Your task to perform on an android device: Open Google Maps Image 0: 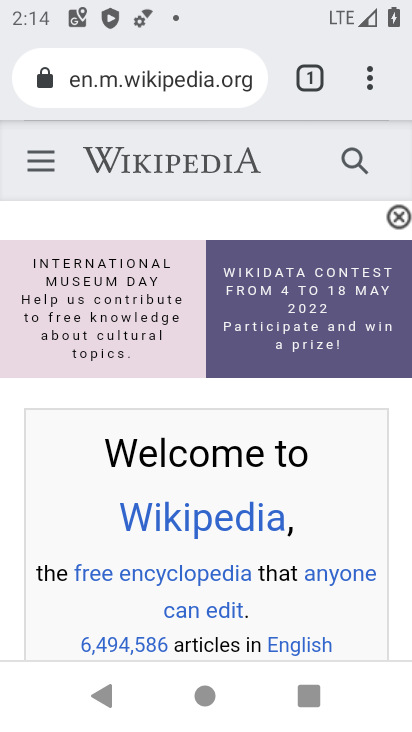
Step 0: press home button
Your task to perform on an android device: Open Google Maps Image 1: 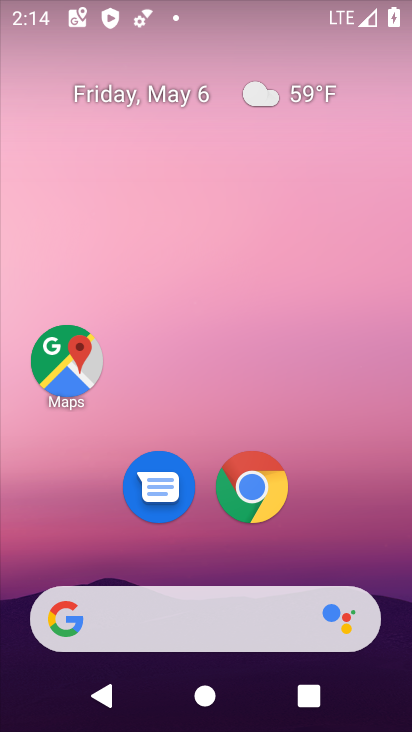
Step 1: drag from (264, 601) to (244, 166)
Your task to perform on an android device: Open Google Maps Image 2: 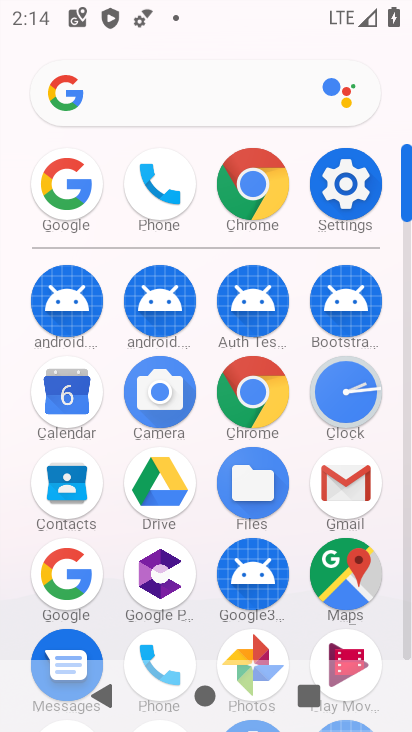
Step 2: click (354, 582)
Your task to perform on an android device: Open Google Maps Image 3: 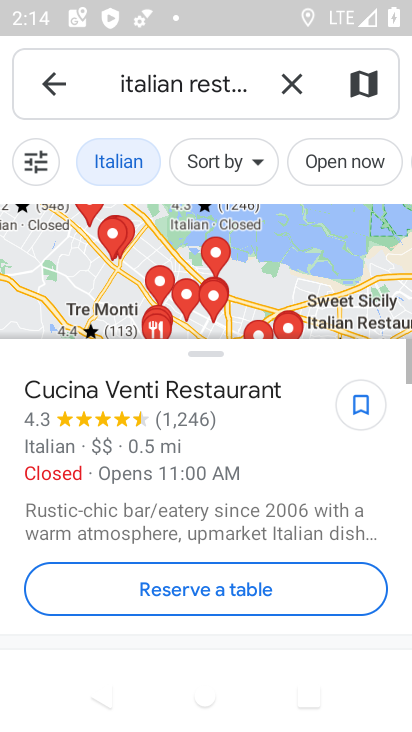
Step 3: click (49, 88)
Your task to perform on an android device: Open Google Maps Image 4: 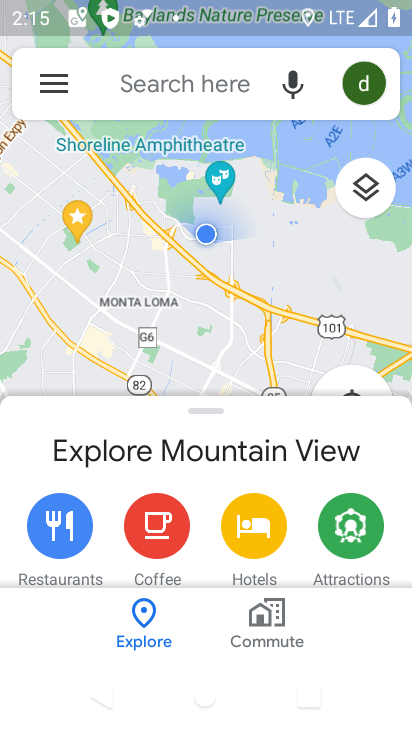
Step 4: task complete